Your task to perform on an android device: Go to calendar. Show me events next week Image 0: 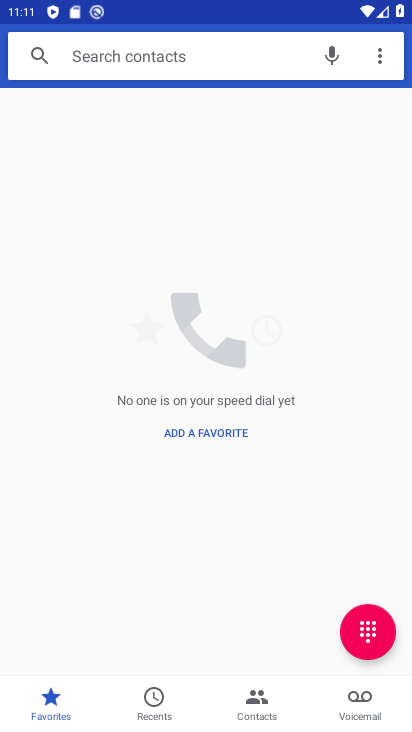
Step 0: press home button
Your task to perform on an android device: Go to calendar. Show me events next week Image 1: 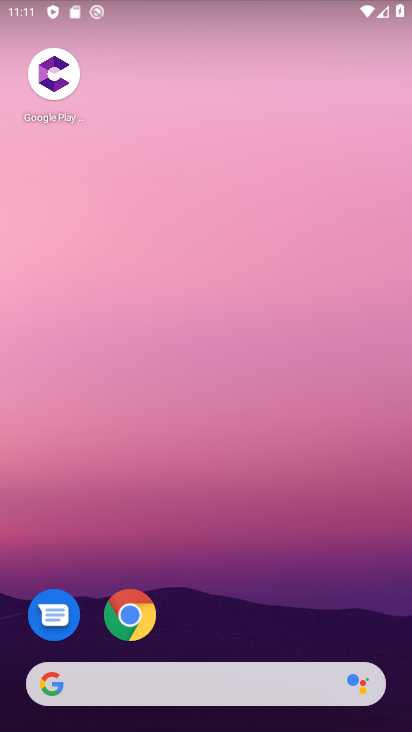
Step 1: drag from (241, 625) to (212, 80)
Your task to perform on an android device: Go to calendar. Show me events next week Image 2: 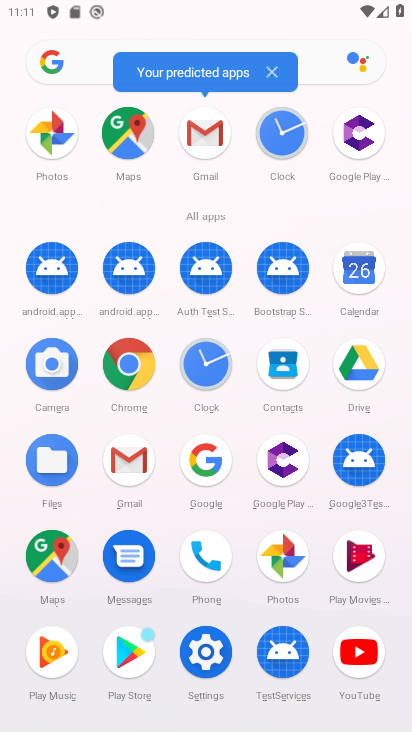
Step 2: click (364, 275)
Your task to perform on an android device: Go to calendar. Show me events next week Image 3: 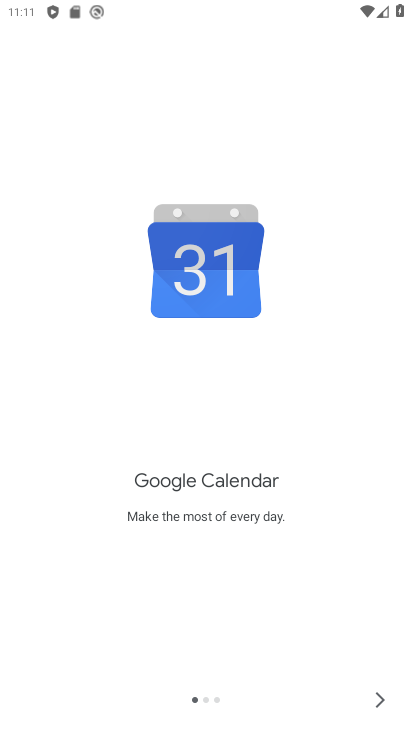
Step 3: click (379, 701)
Your task to perform on an android device: Go to calendar. Show me events next week Image 4: 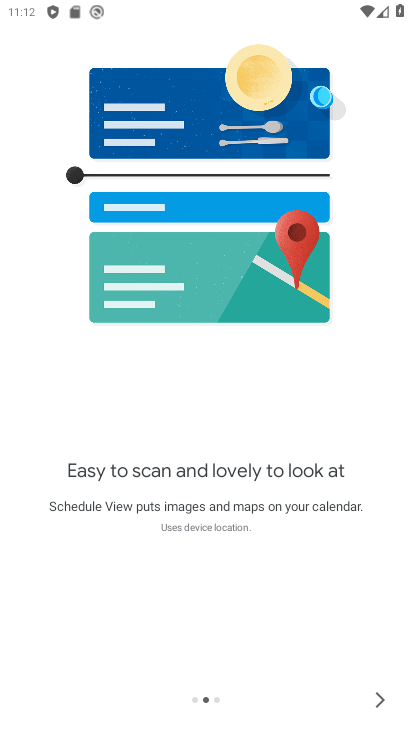
Step 4: click (379, 701)
Your task to perform on an android device: Go to calendar. Show me events next week Image 5: 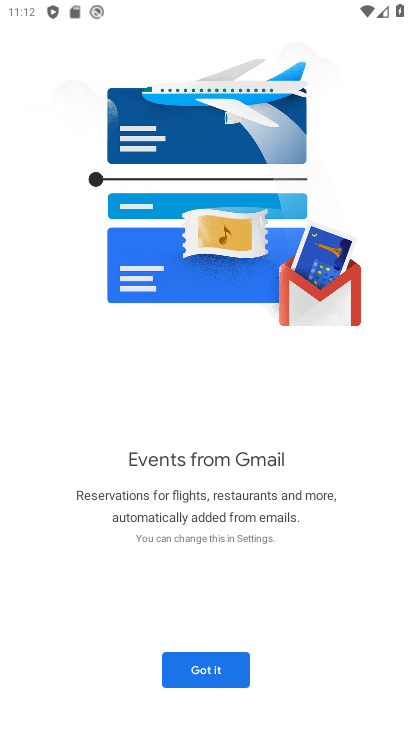
Step 5: click (227, 670)
Your task to perform on an android device: Go to calendar. Show me events next week Image 6: 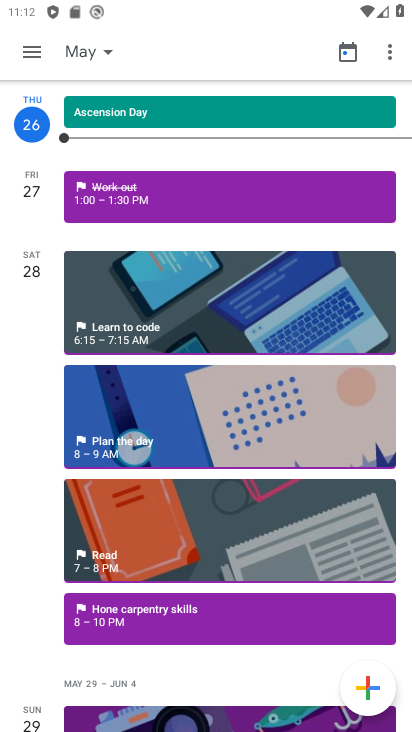
Step 6: click (28, 52)
Your task to perform on an android device: Go to calendar. Show me events next week Image 7: 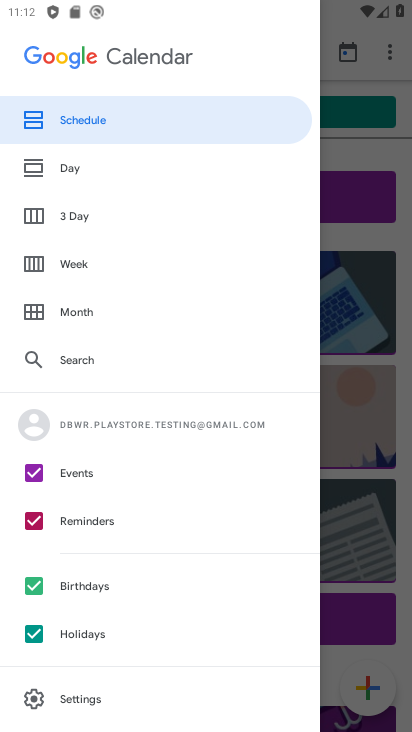
Step 7: click (33, 634)
Your task to perform on an android device: Go to calendar. Show me events next week Image 8: 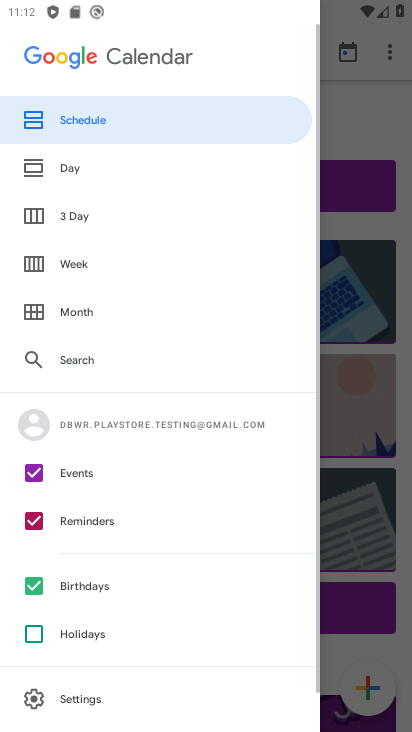
Step 8: click (33, 581)
Your task to perform on an android device: Go to calendar. Show me events next week Image 9: 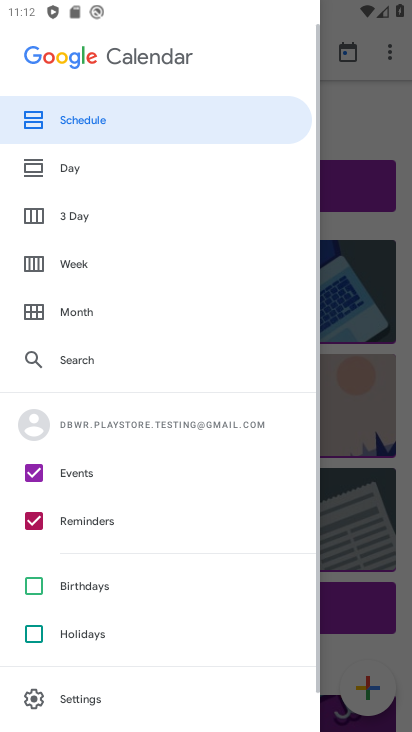
Step 9: click (28, 516)
Your task to perform on an android device: Go to calendar. Show me events next week Image 10: 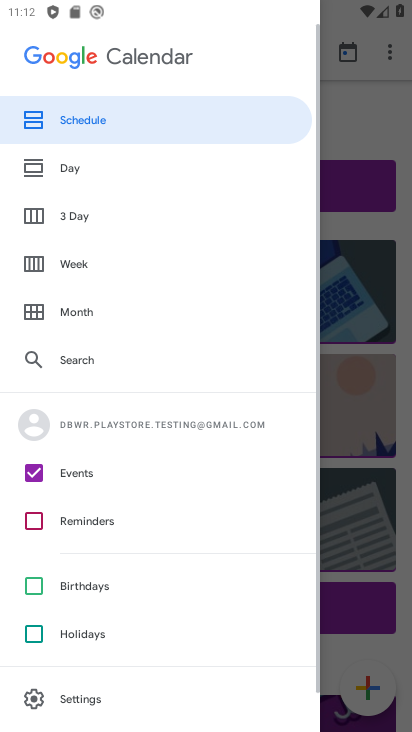
Step 10: click (87, 271)
Your task to perform on an android device: Go to calendar. Show me events next week Image 11: 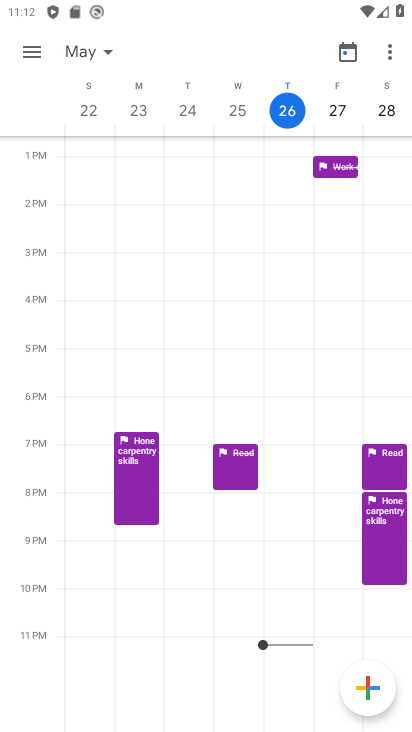
Step 11: task complete